Your task to perform on an android device: Open ESPN.com Image 0: 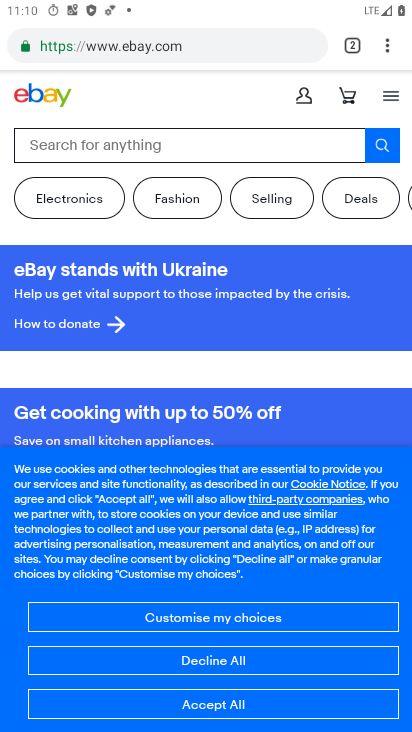
Step 0: click (348, 46)
Your task to perform on an android device: Open ESPN.com Image 1: 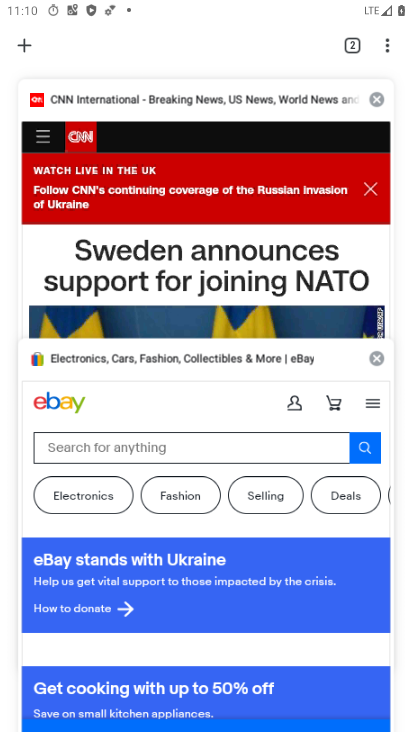
Step 1: click (9, 40)
Your task to perform on an android device: Open ESPN.com Image 2: 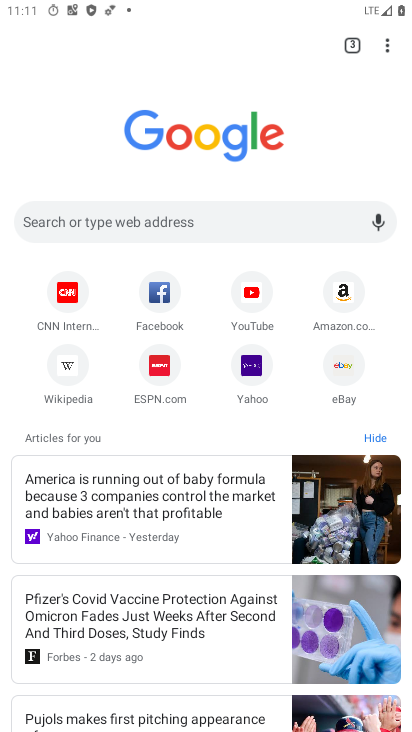
Step 2: click (156, 380)
Your task to perform on an android device: Open ESPN.com Image 3: 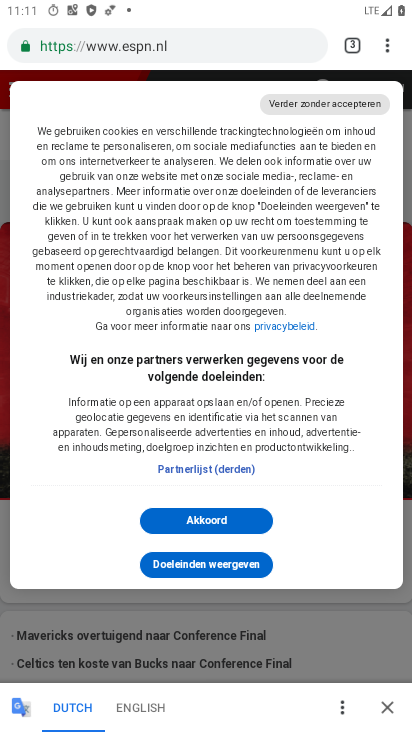
Step 3: task complete